Your task to perform on an android device: add a label to a message in the gmail app Image 0: 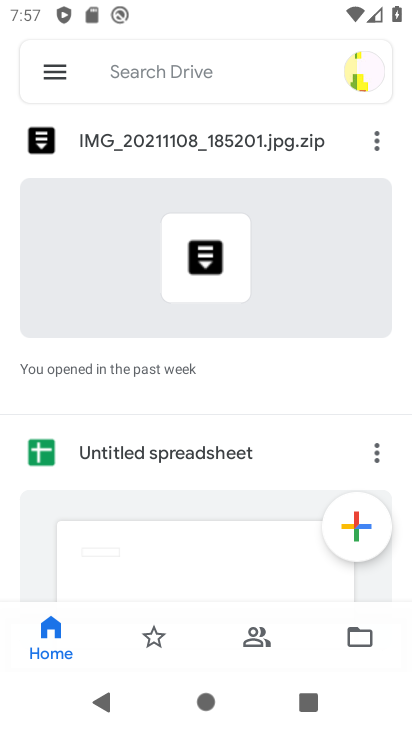
Step 0: press home button
Your task to perform on an android device: add a label to a message in the gmail app Image 1: 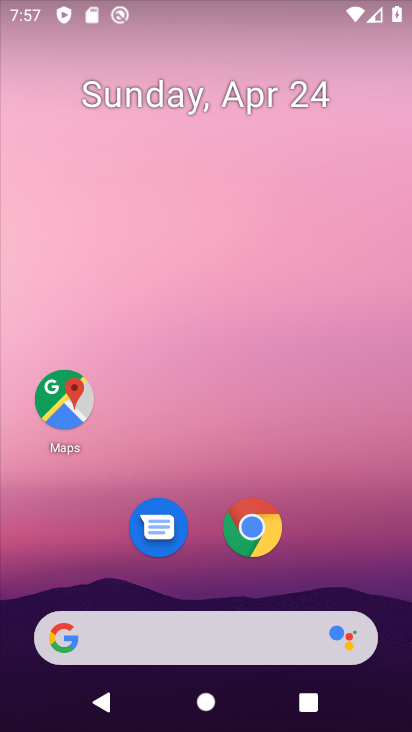
Step 1: drag from (381, 600) to (408, 20)
Your task to perform on an android device: add a label to a message in the gmail app Image 2: 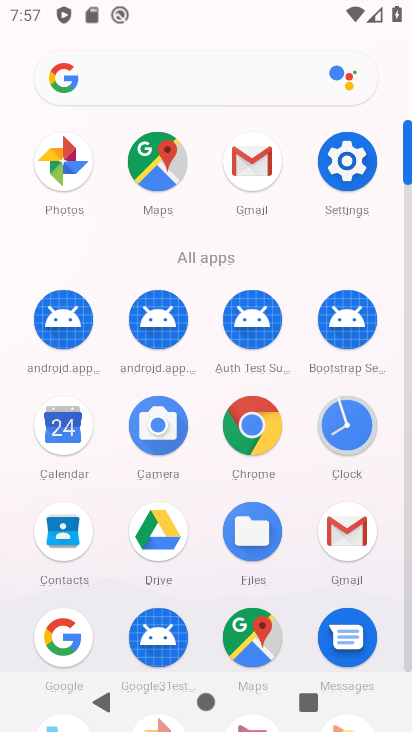
Step 2: click (250, 174)
Your task to perform on an android device: add a label to a message in the gmail app Image 3: 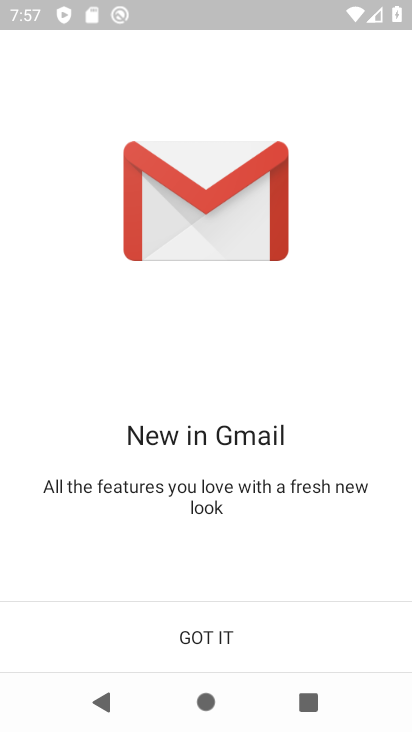
Step 3: click (214, 648)
Your task to perform on an android device: add a label to a message in the gmail app Image 4: 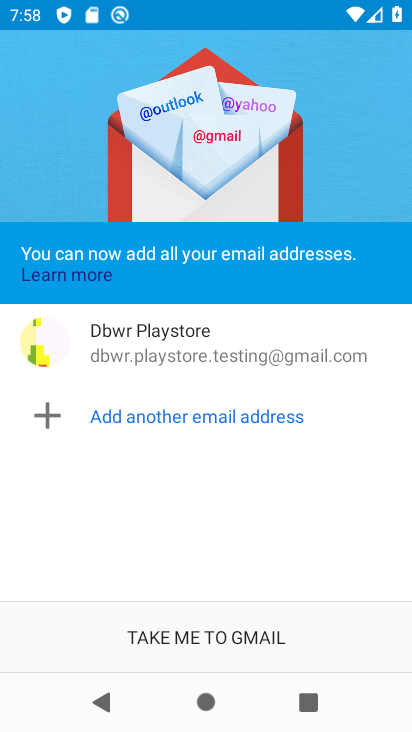
Step 4: click (214, 635)
Your task to perform on an android device: add a label to a message in the gmail app Image 5: 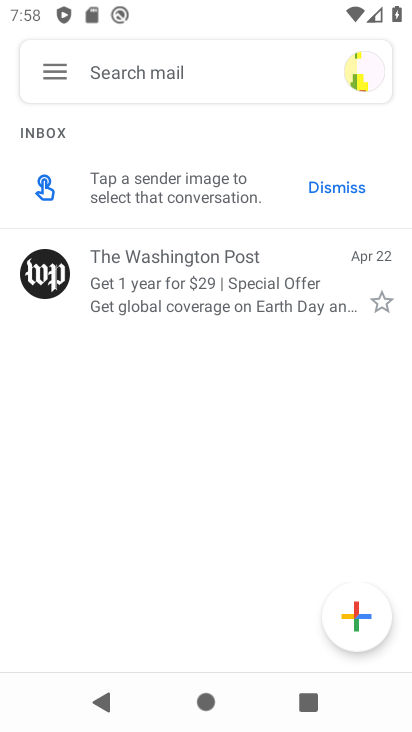
Step 5: click (164, 273)
Your task to perform on an android device: add a label to a message in the gmail app Image 6: 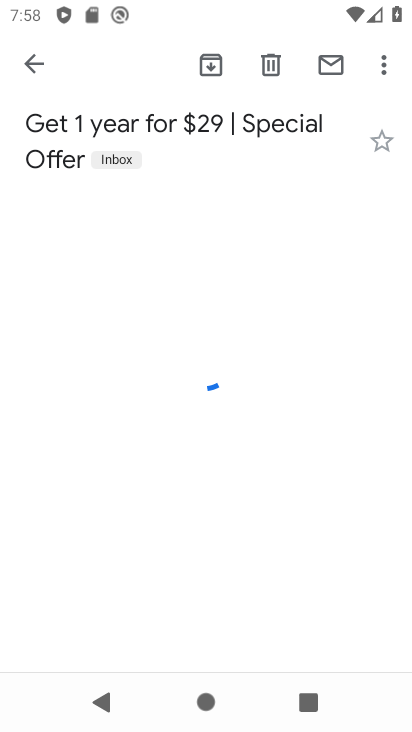
Step 6: click (38, 69)
Your task to perform on an android device: add a label to a message in the gmail app Image 7: 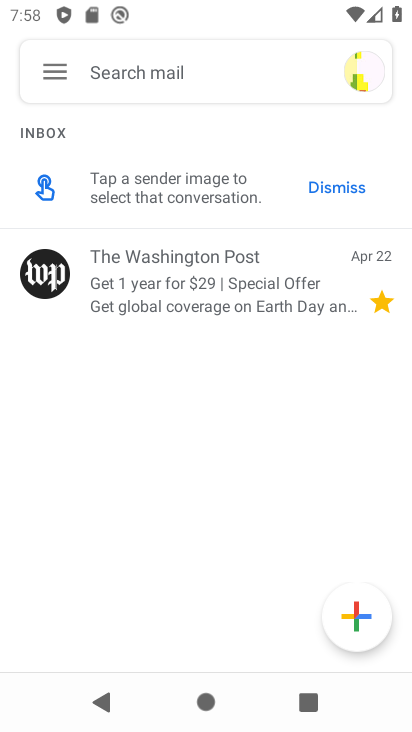
Step 7: click (38, 70)
Your task to perform on an android device: add a label to a message in the gmail app Image 8: 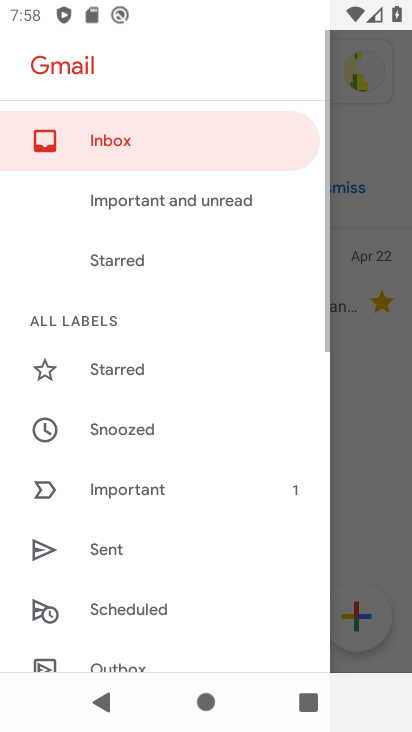
Step 8: drag from (185, 479) to (172, 110)
Your task to perform on an android device: add a label to a message in the gmail app Image 9: 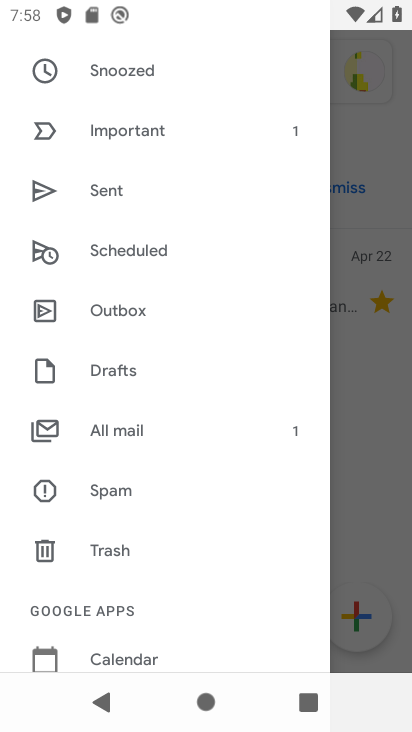
Step 9: click (114, 433)
Your task to perform on an android device: add a label to a message in the gmail app Image 10: 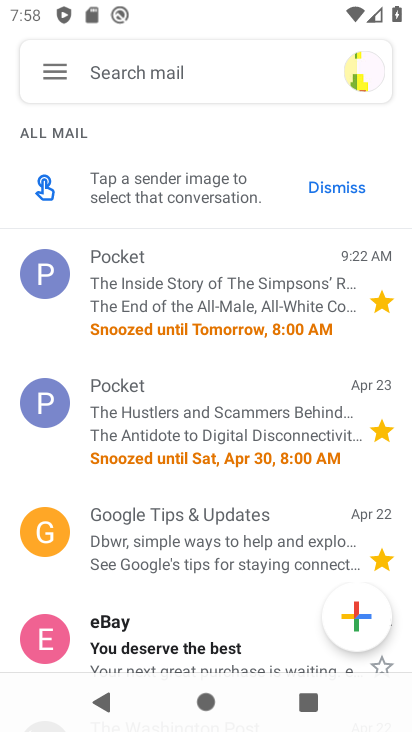
Step 10: click (206, 313)
Your task to perform on an android device: add a label to a message in the gmail app Image 11: 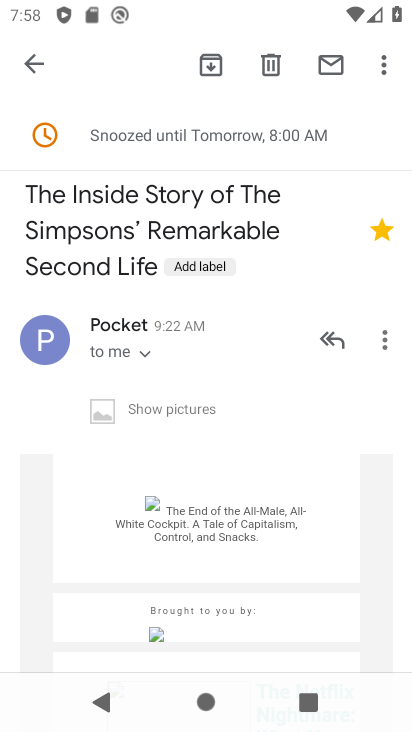
Step 11: click (198, 270)
Your task to perform on an android device: add a label to a message in the gmail app Image 12: 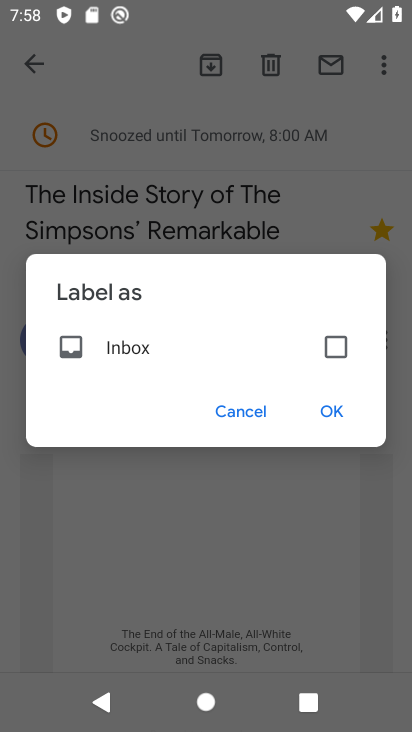
Step 12: click (328, 346)
Your task to perform on an android device: add a label to a message in the gmail app Image 13: 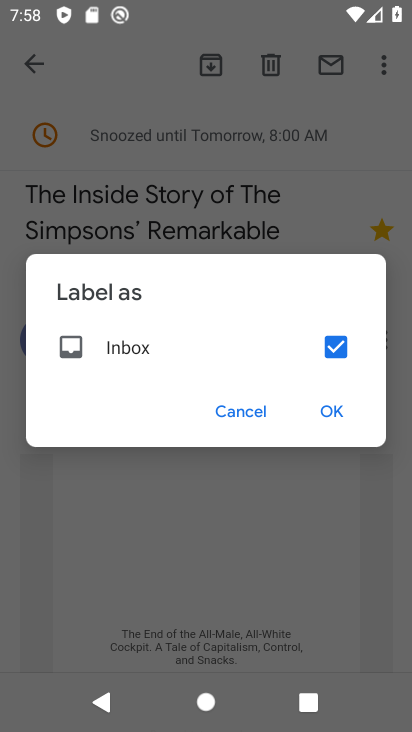
Step 13: click (337, 412)
Your task to perform on an android device: add a label to a message in the gmail app Image 14: 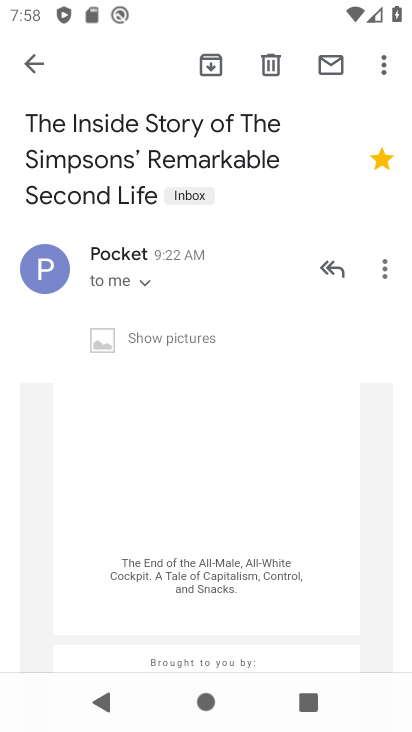
Step 14: task complete